Your task to perform on an android device: uninstall "The Home Depot" Image 0: 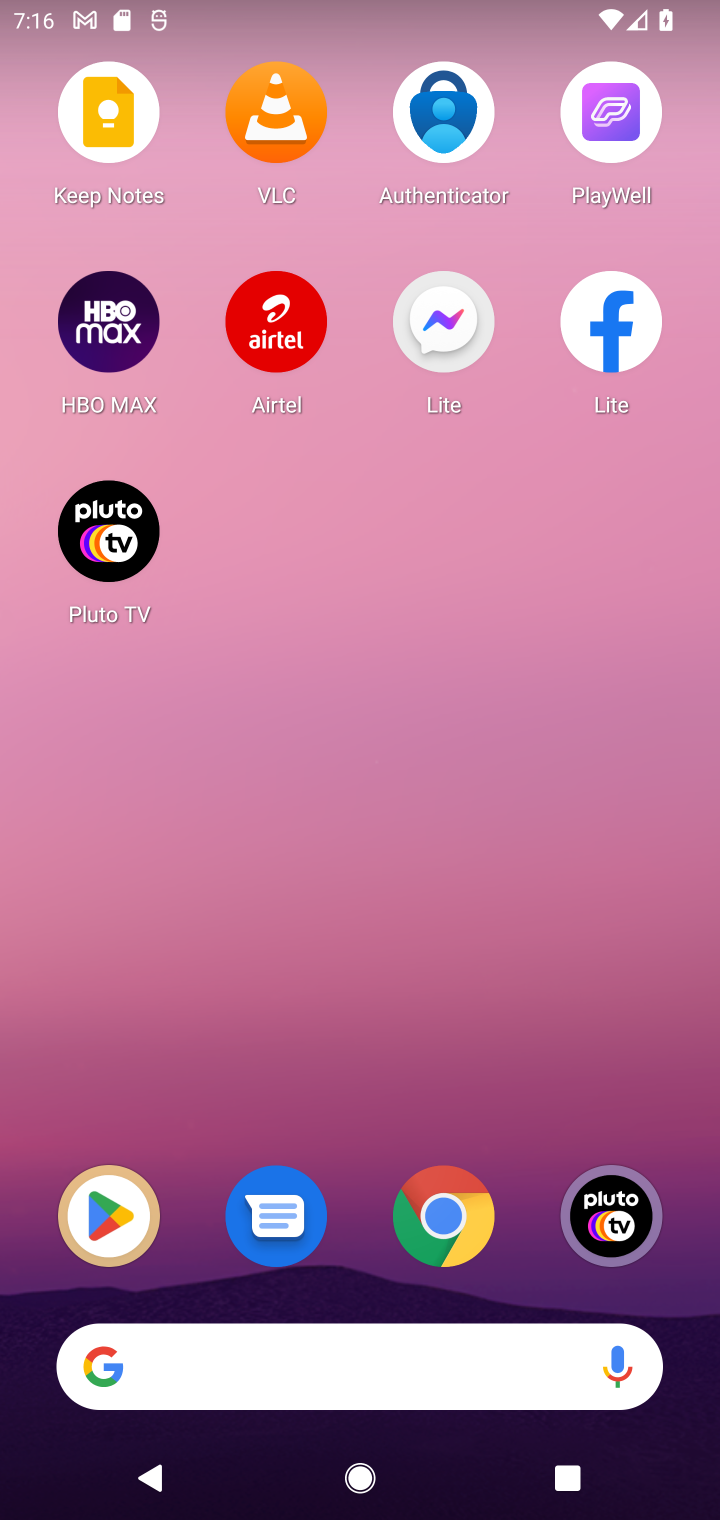
Step 0: press home button
Your task to perform on an android device: uninstall "The Home Depot" Image 1: 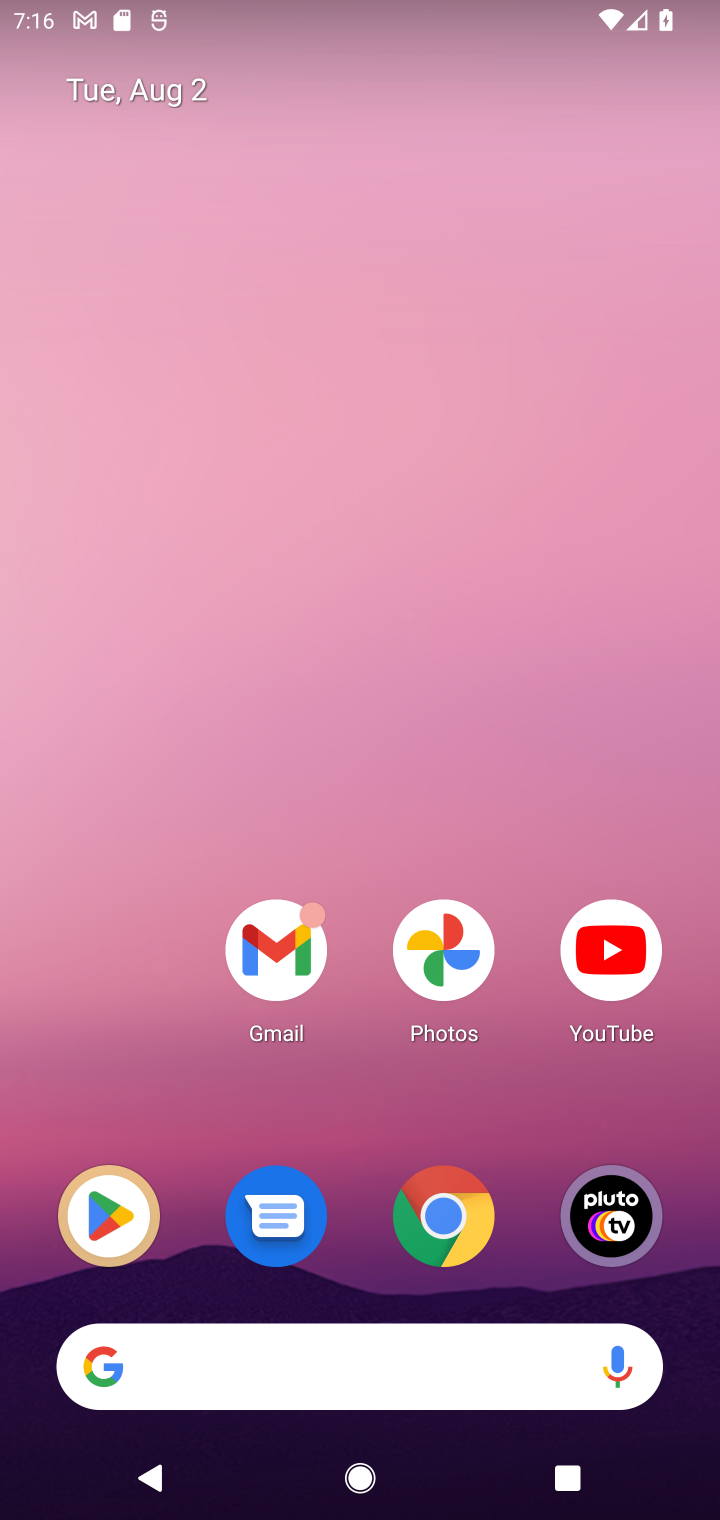
Step 1: click (106, 1213)
Your task to perform on an android device: uninstall "The Home Depot" Image 2: 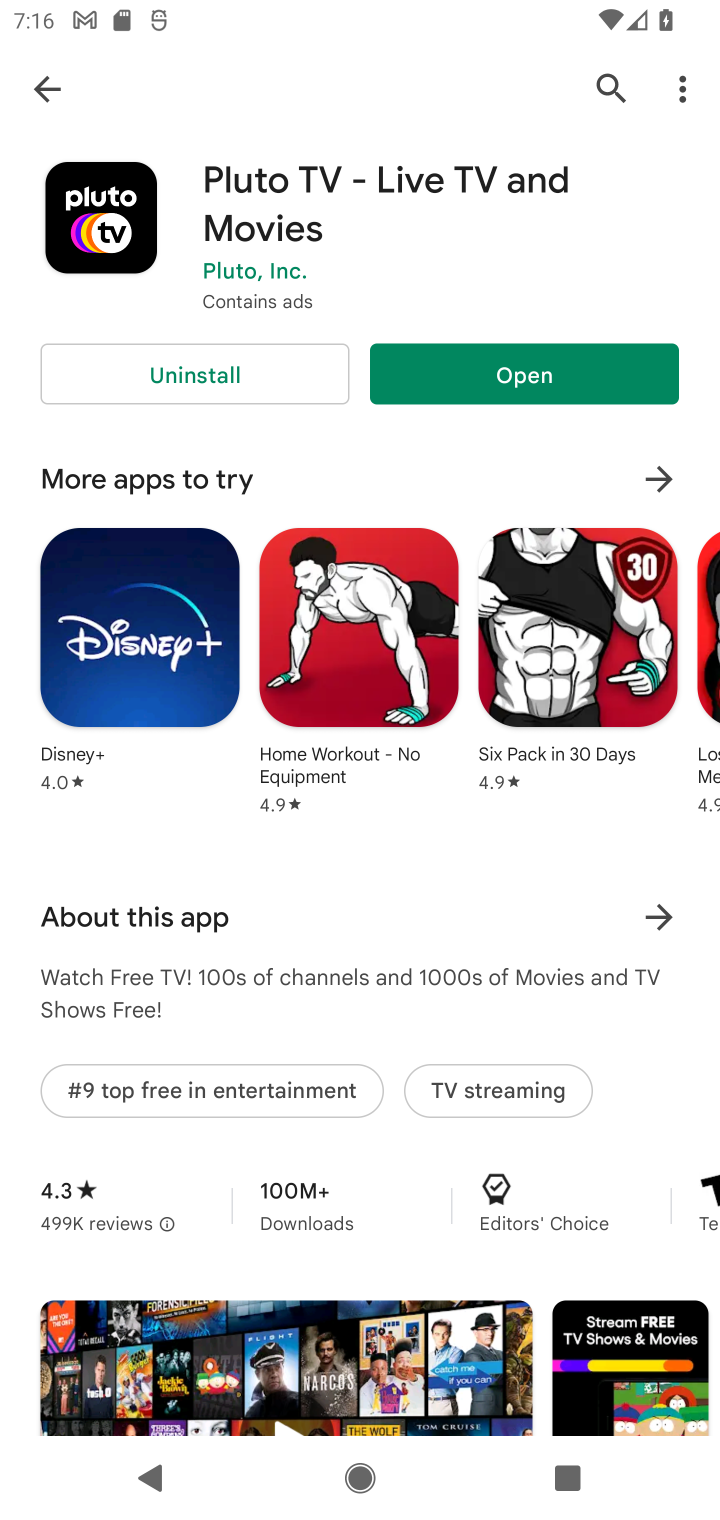
Step 2: click (613, 86)
Your task to perform on an android device: uninstall "The Home Depot" Image 3: 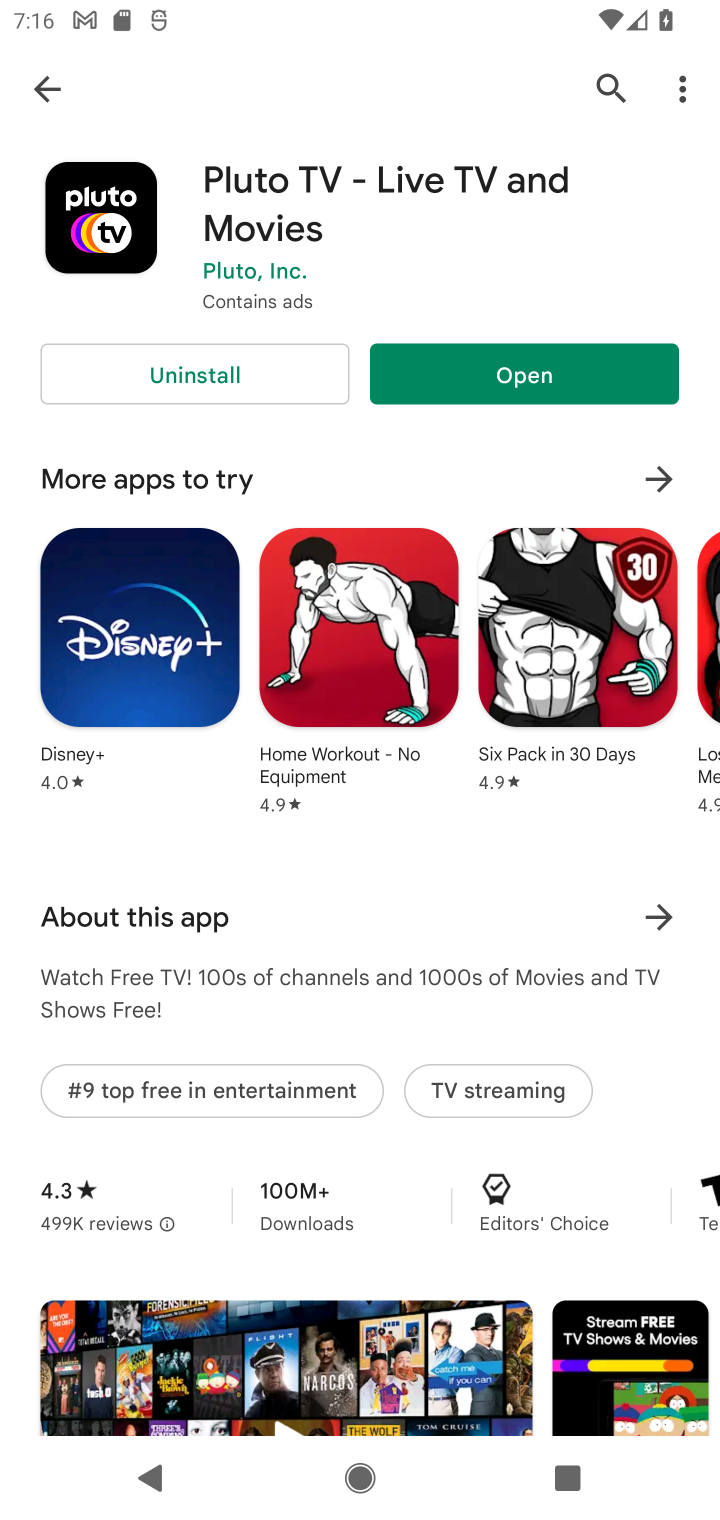
Step 3: click (604, 83)
Your task to perform on an android device: uninstall "The Home Depot" Image 4: 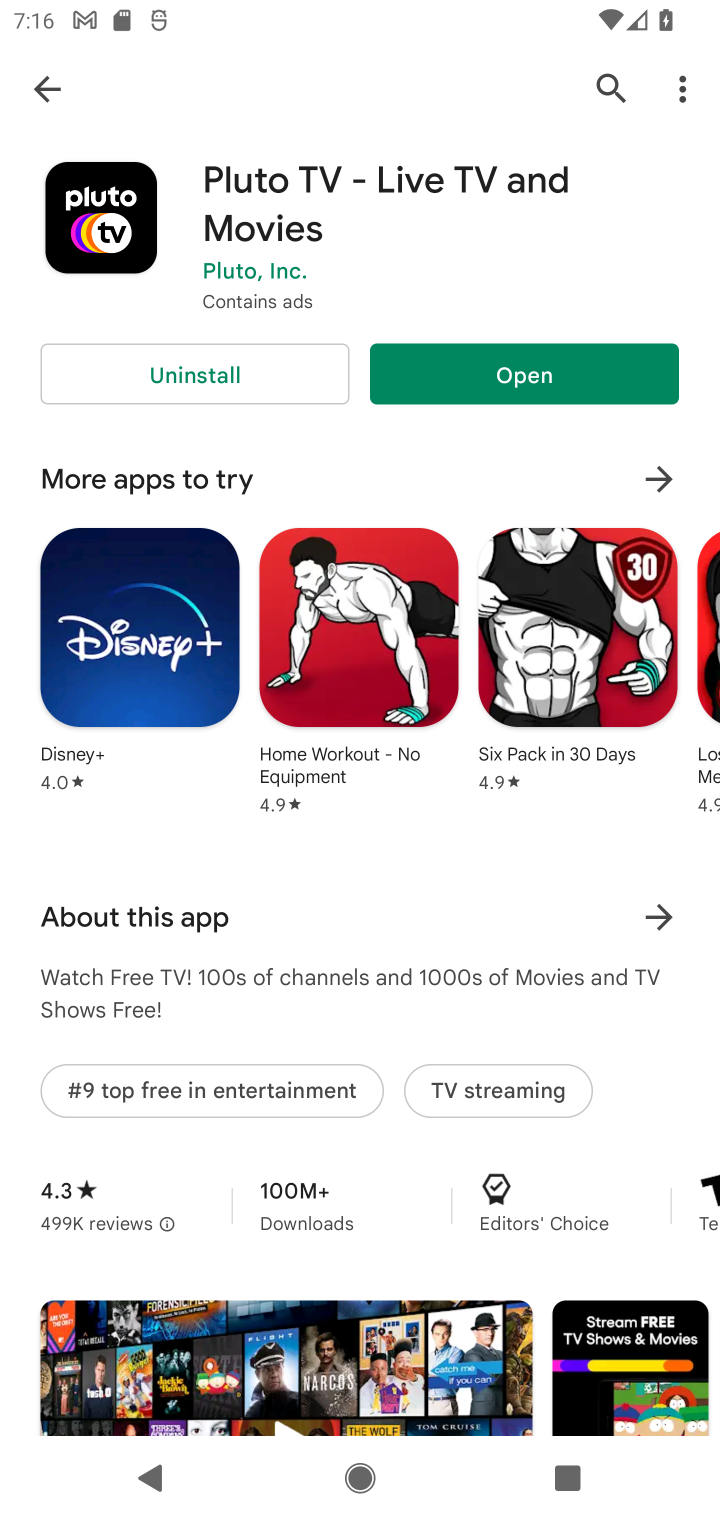
Step 4: click (53, 82)
Your task to perform on an android device: uninstall "The Home Depot" Image 5: 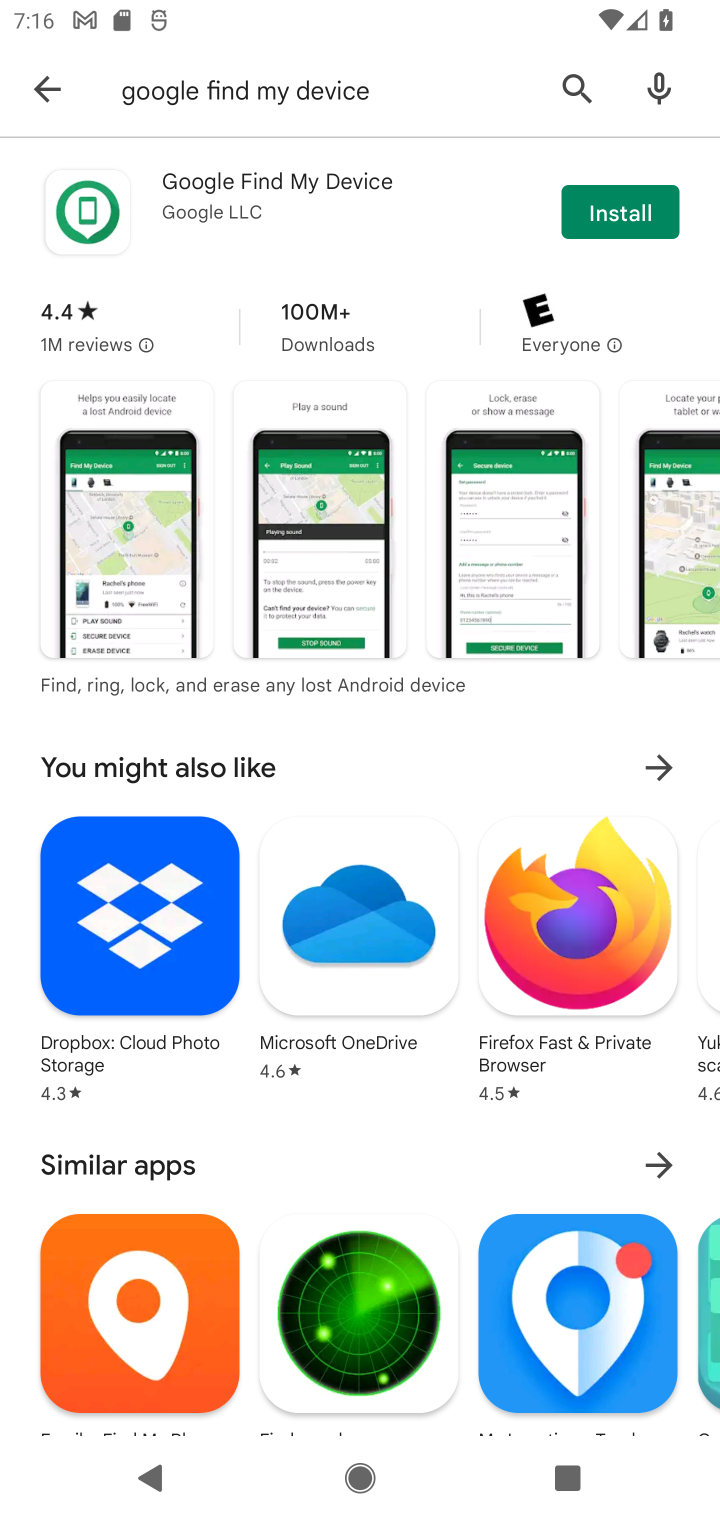
Step 5: click (572, 72)
Your task to perform on an android device: uninstall "The Home Depot" Image 6: 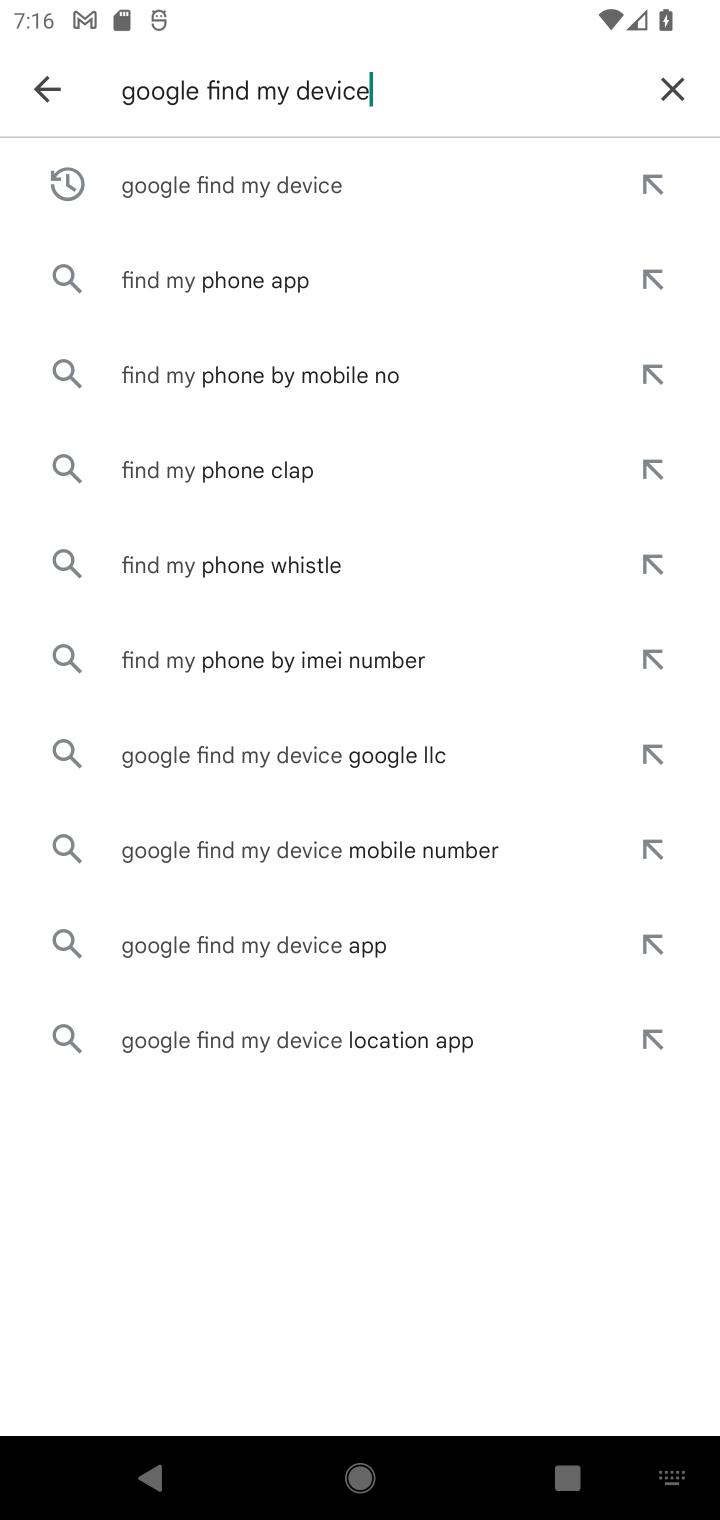
Step 6: click (666, 83)
Your task to perform on an android device: uninstall "The Home Depot" Image 7: 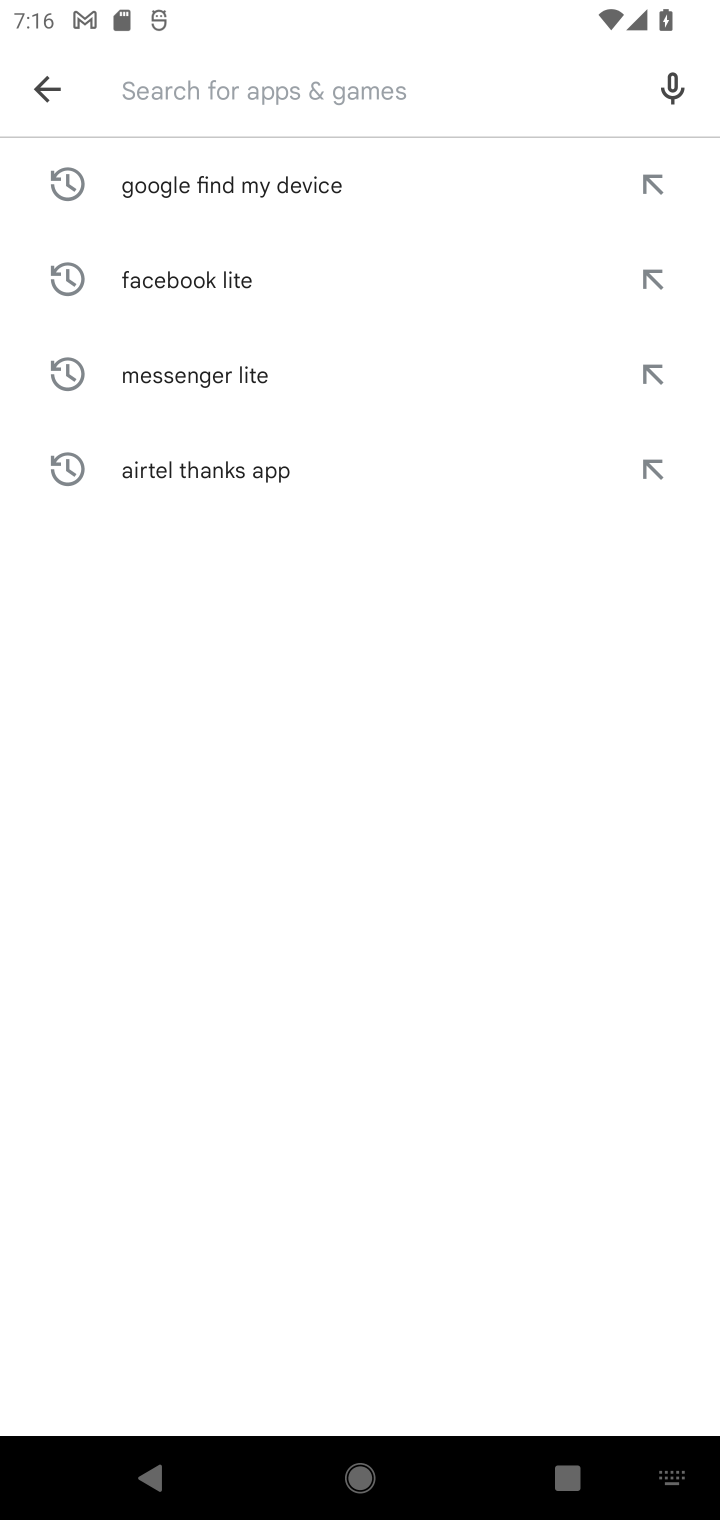
Step 7: type "The Home Depot"
Your task to perform on an android device: uninstall "The Home Depot" Image 8: 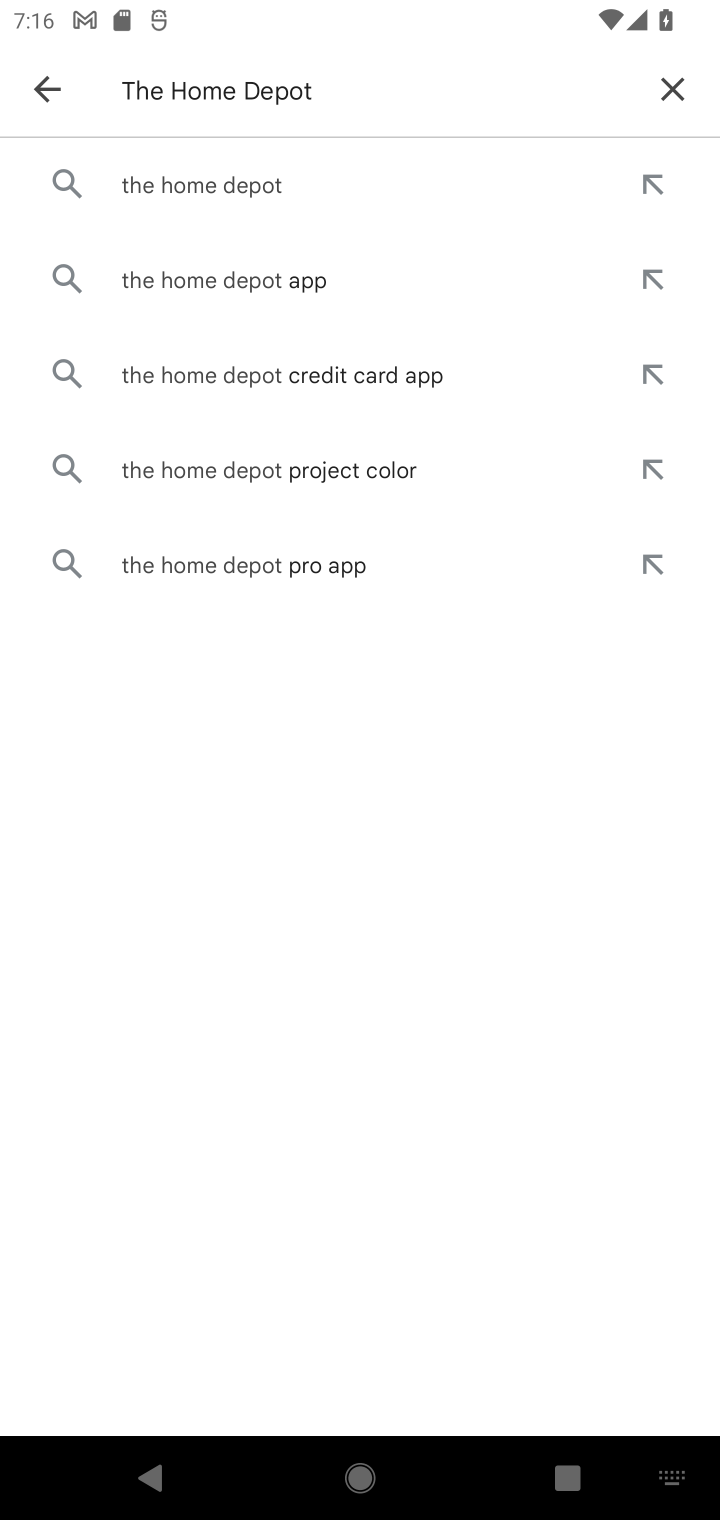
Step 8: click (231, 177)
Your task to perform on an android device: uninstall "The Home Depot" Image 9: 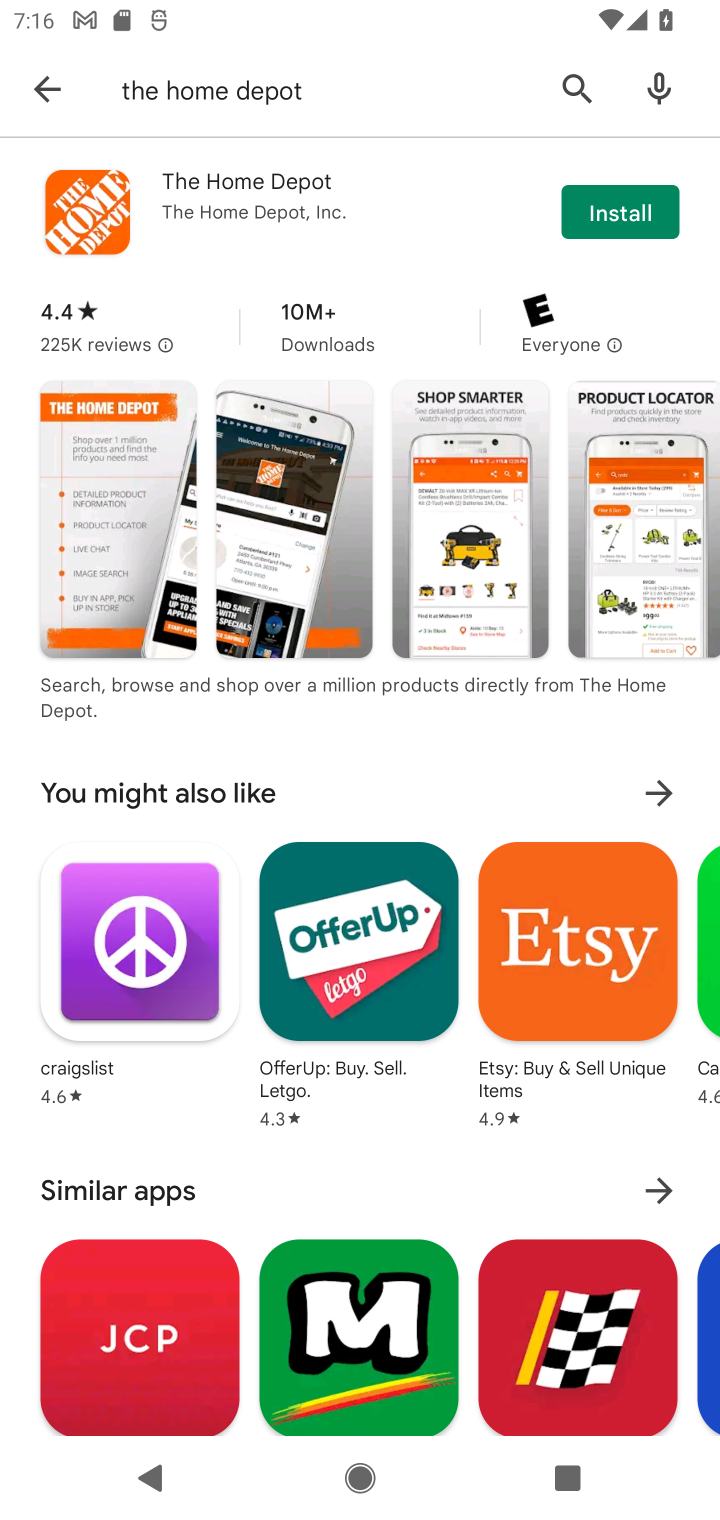
Step 9: task complete